Your task to perform on an android device: open sync settings in chrome Image 0: 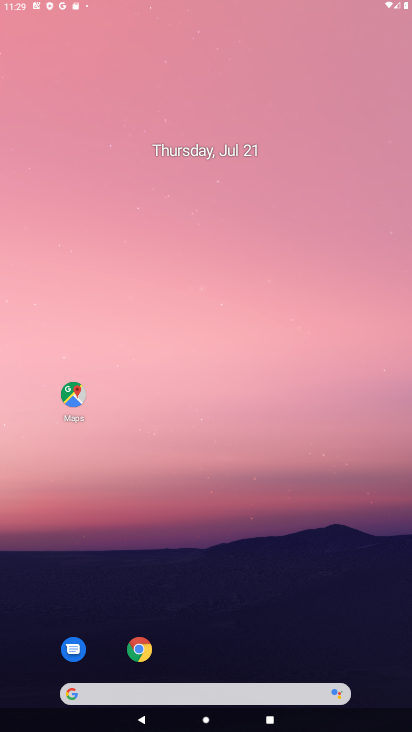
Step 0: click (235, 61)
Your task to perform on an android device: open sync settings in chrome Image 1: 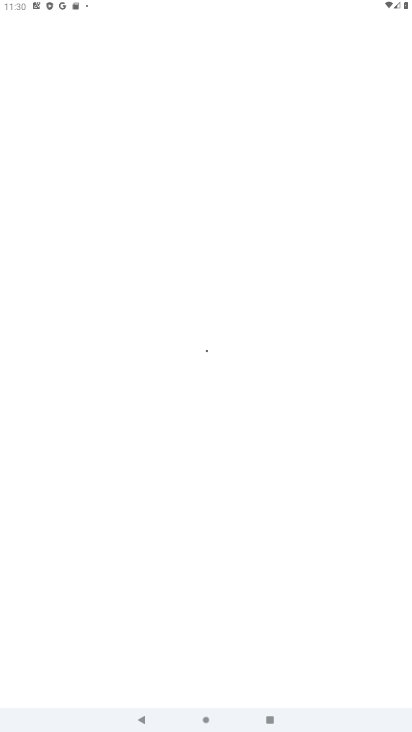
Step 1: press home button
Your task to perform on an android device: open sync settings in chrome Image 2: 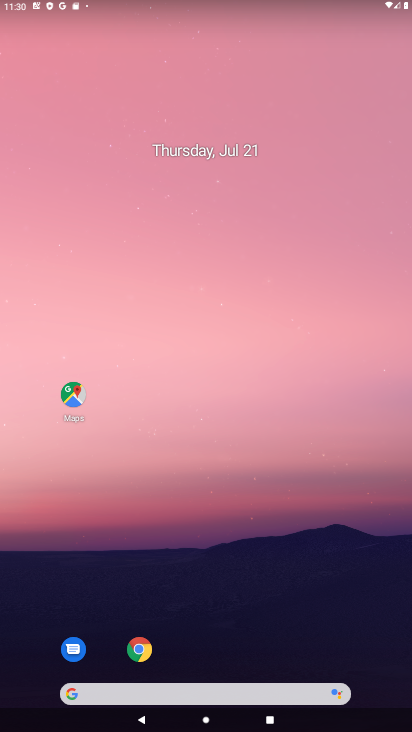
Step 2: click (138, 647)
Your task to perform on an android device: open sync settings in chrome Image 3: 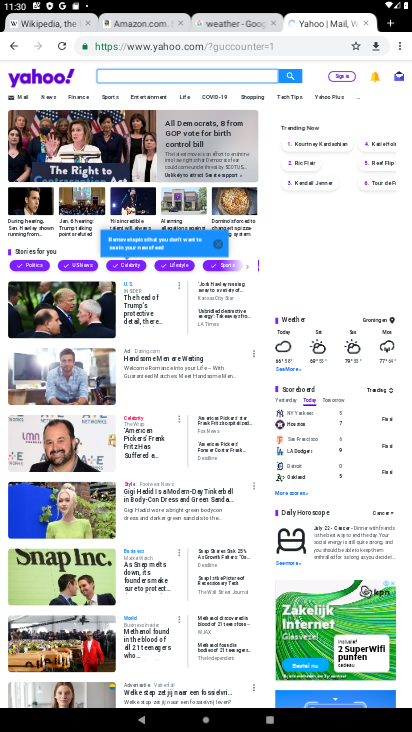
Step 3: click (399, 48)
Your task to perform on an android device: open sync settings in chrome Image 4: 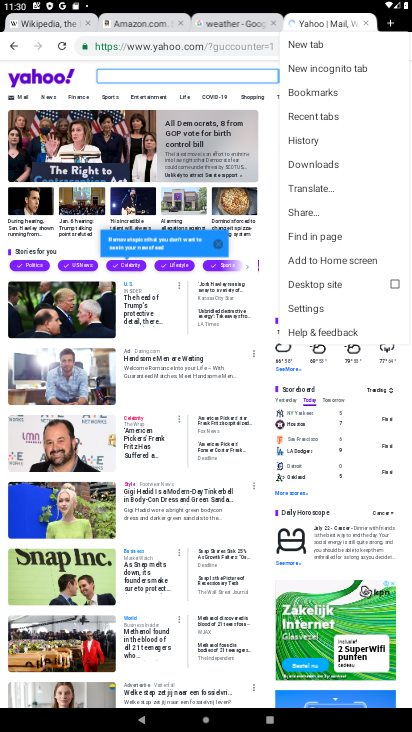
Step 4: click (307, 309)
Your task to perform on an android device: open sync settings in chrome Image 5: 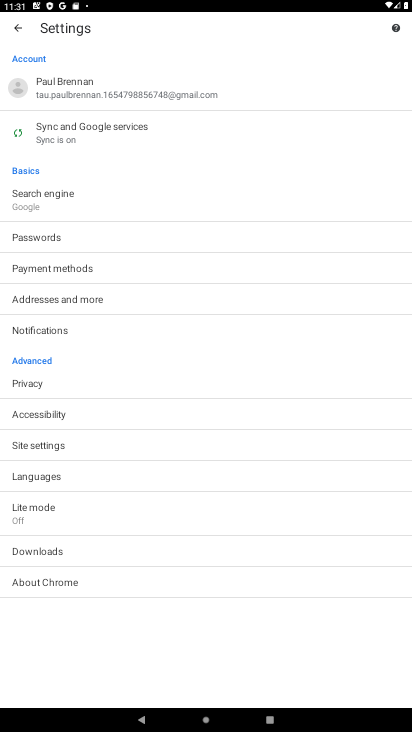
Step 5: click (51, 442)
Your task to perform on an android device: open sync settings in chrome Image 6: 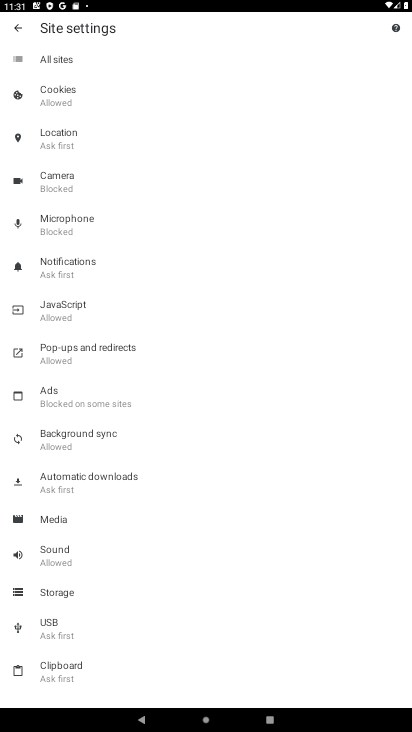
Step 6: click (69, 433)
Your task to perform on an android device: open sync settings in chrome Image 7: 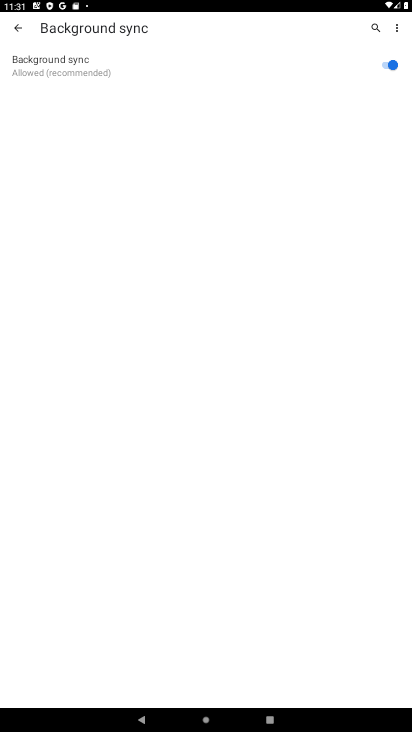
Step 7: task complete